Your task to perform on an android device: Open the map Image 0: 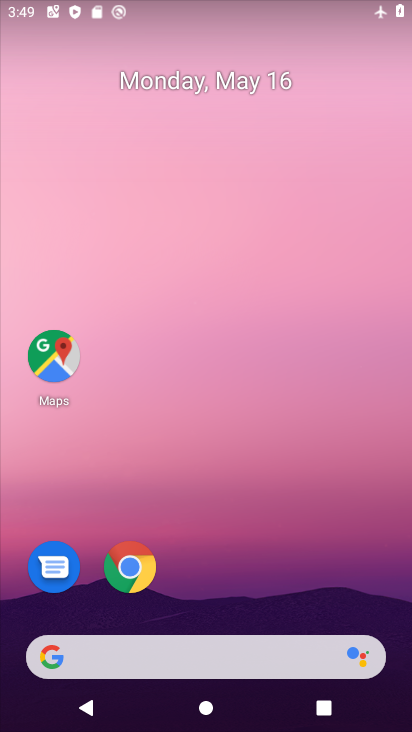
Step 0: drag from (286, 598) to (258, 0)
Your task to perform on an android device: Open the map Image 1: 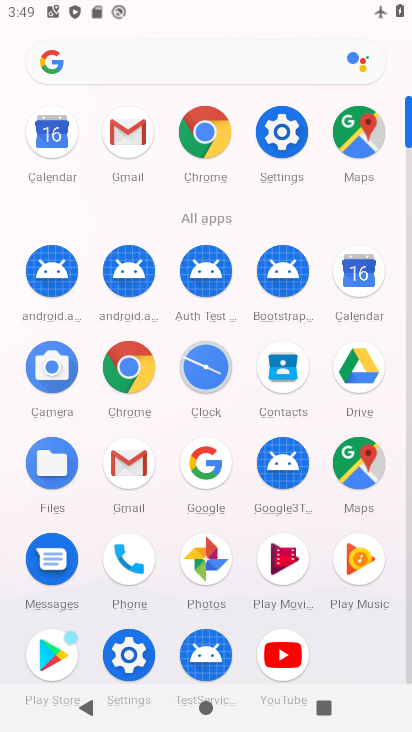
Step 1: click (355, 141)
Your task to perform on an android device: Open the map Image 2: 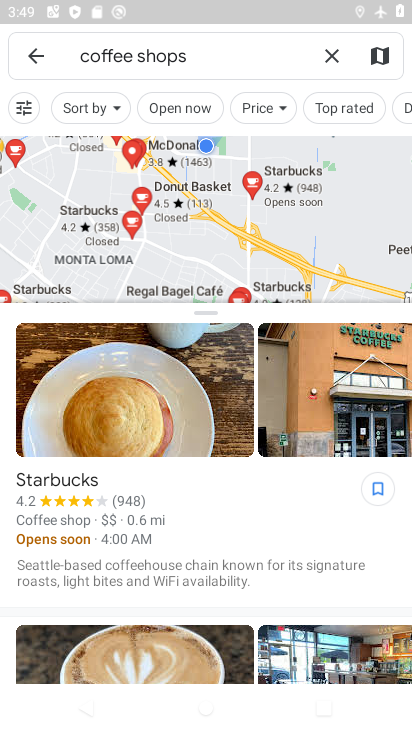
Step 2: press back button
Your task to perform on an android device: Open the map Image 3: 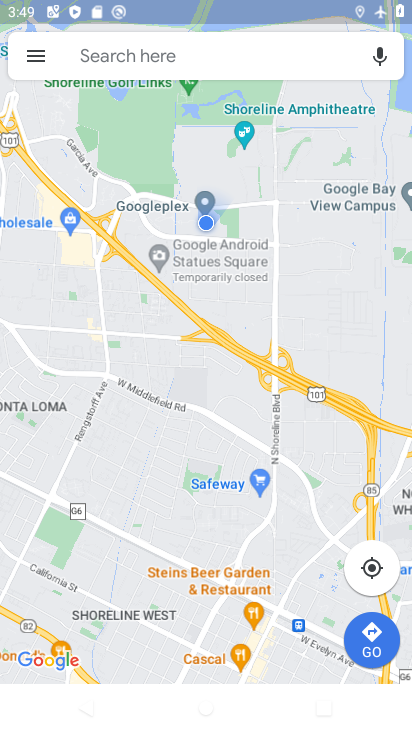
Step 3: press back button
Your task to perform on an android device: Open the map Image 4: 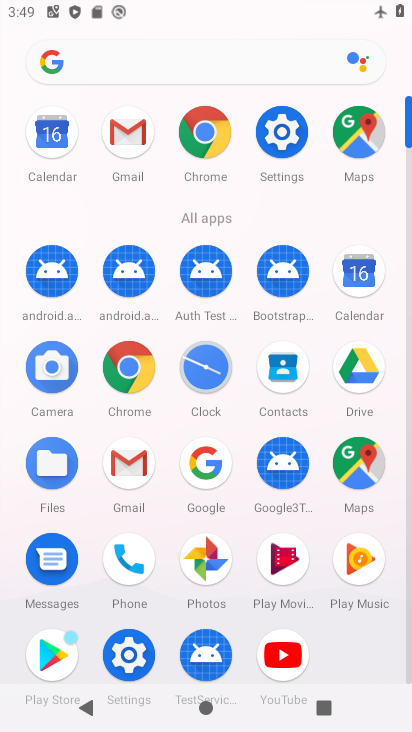
Step 4: click (357, 478)
Your task to perform on an android device: Open the map Image 5: 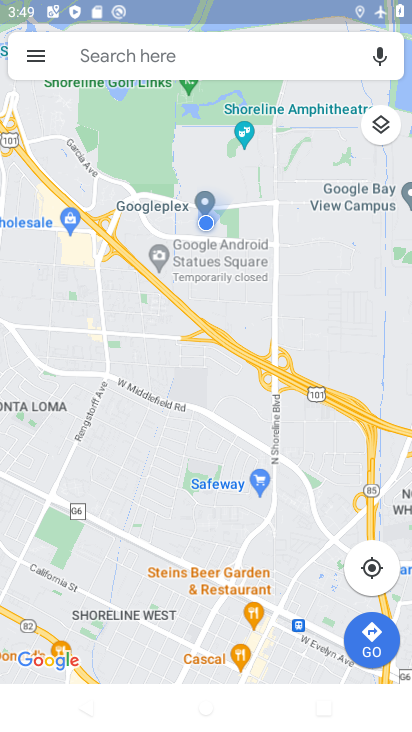
Step 5: task complete